Your task to perform on an android device: find snoozed emails in the gmail app Image 0: 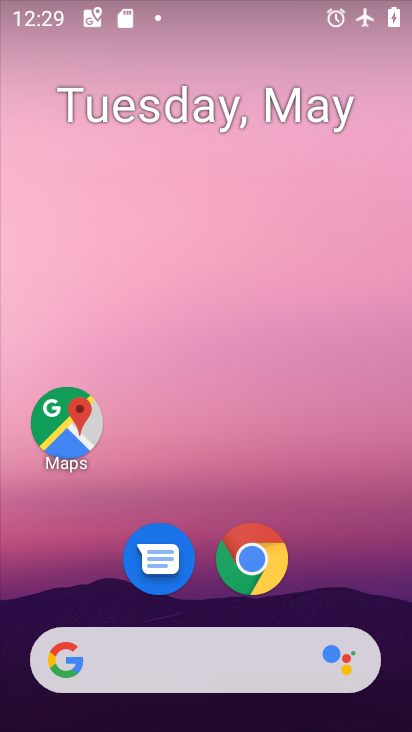
Step 0: drag from (377, 604) to (304, 187)
Your task to perform on an android device: find snoozed emails in the gmail app Image 1: 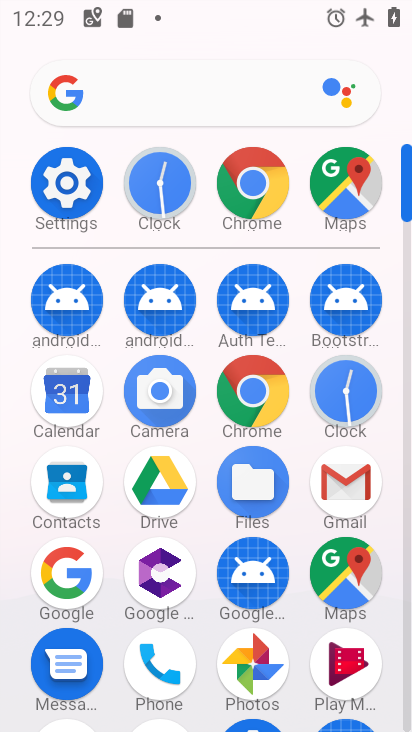
Step 1: click (337, 471)
Your task to perform on an android device: find snoozed emails in the gmail app Image 2: 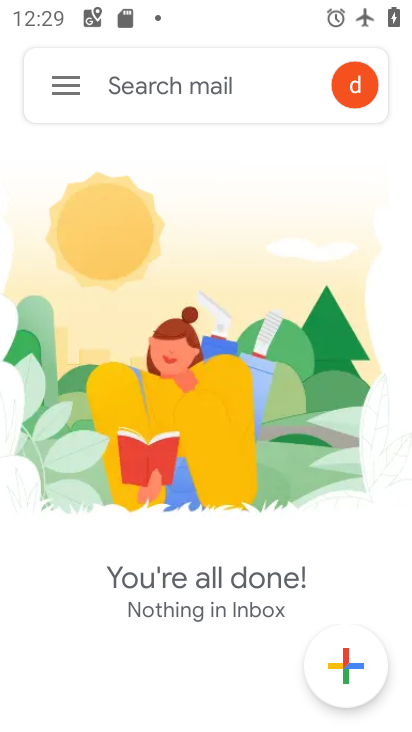
Step 2: click (56, 84)
Your task to perform on an android device: find snoozed emails in the gmail app Image 3: 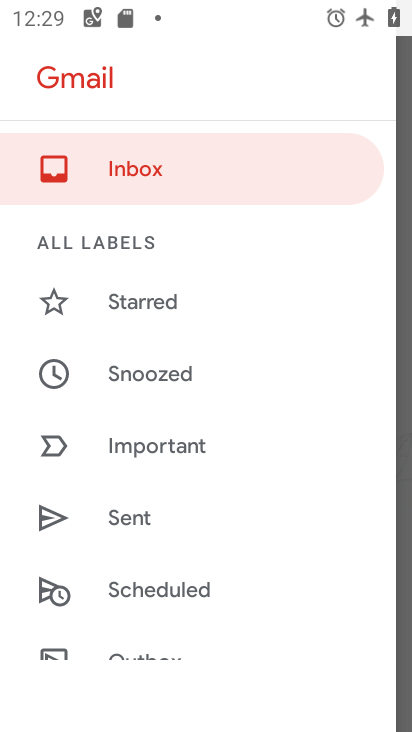
Step 3: click (165, 382)
Your task to perform on an android device: find snoozed emails in the gmail app Image 4: 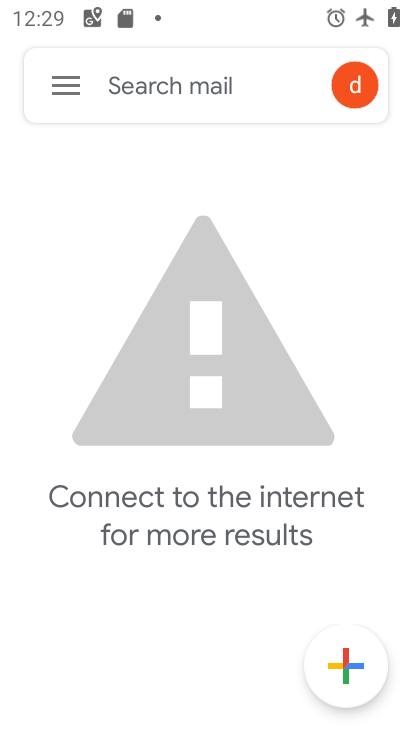
Step 4: task complete